Your task to perform on an android device: What's the weather? Image 0: 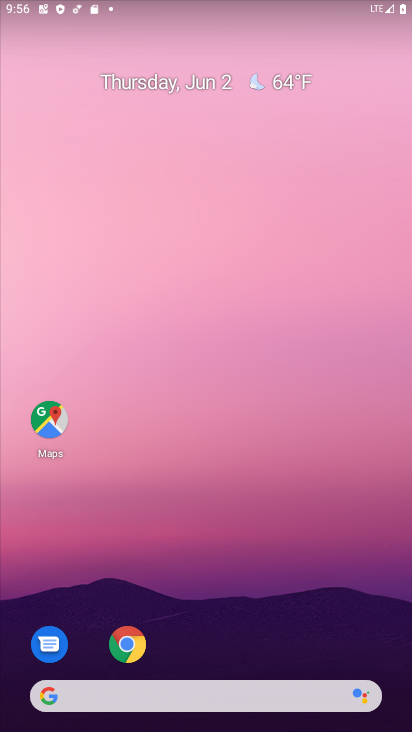
Step 0: press home button
Your task to perform on an android device: What's the weather? Image 1: 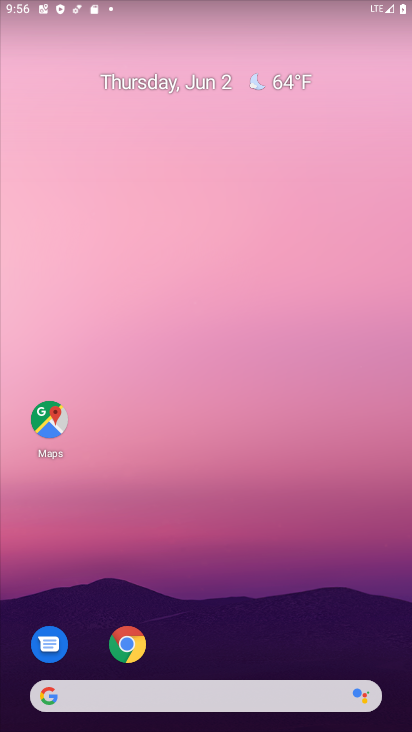
Step 1: drag from (226, 651) to (273, 179)
Your task to perform on an android device: What's the weather? Image 2: 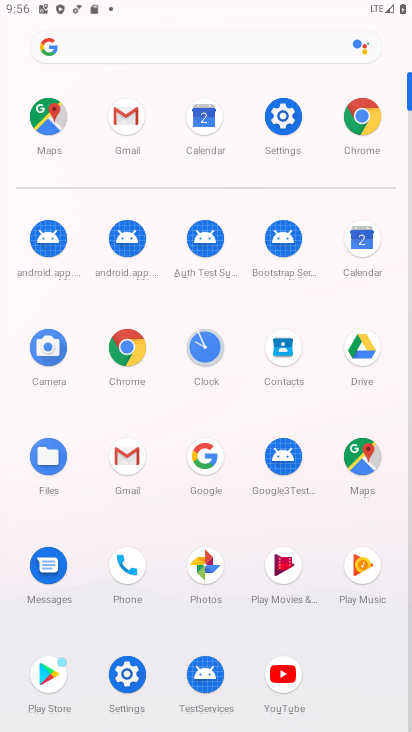
Step 2: click (132, 353)
Your task to perform on an android device: What's the weather? Image 3: 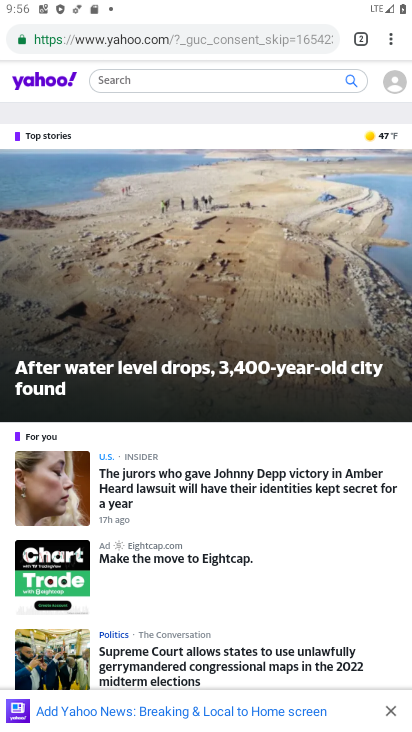
Step 3: click (149, 39)
Your task to perform on an android device: What's the weather? Image 4: 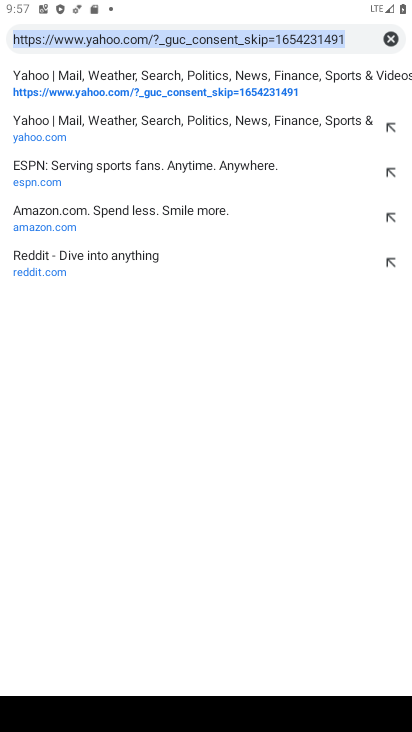
Step 4: click (403, 240)
Your task to perform on an android device: What's the weather? Image 5: 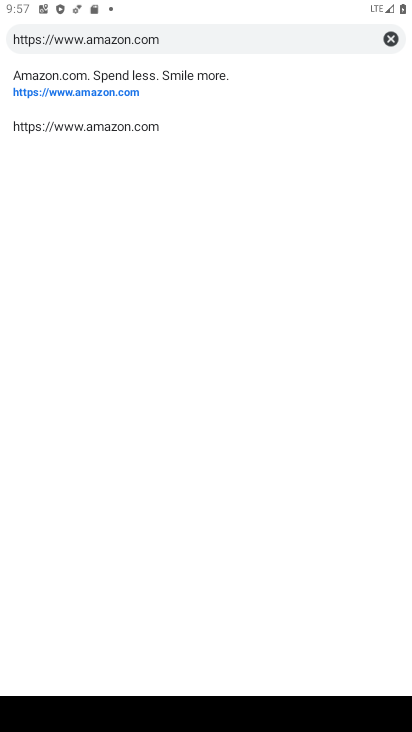
Step 5: click (385, 36)
Your task to perform on an android device: What's the weather? Image 6: 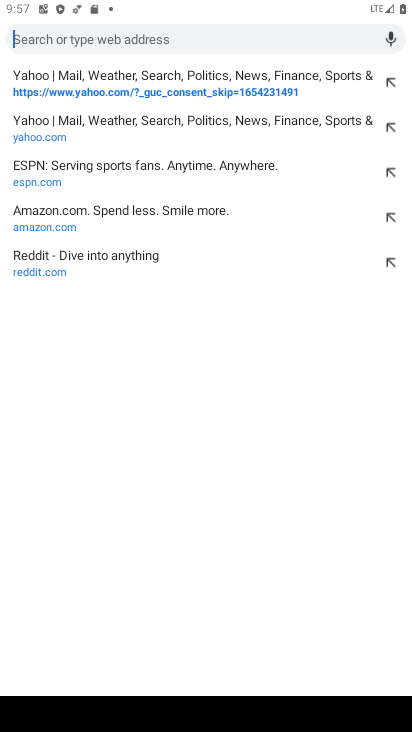
Step 6: type " "
Your task to perform on an android device: What's the weather? Image 7: 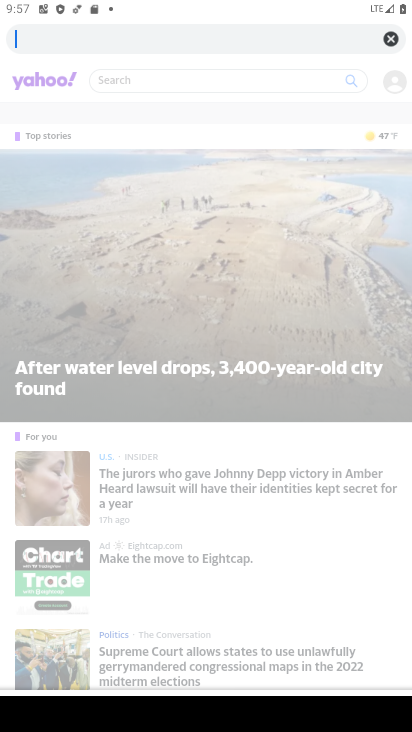
Step 7: type "What's the weather?"
Your task to perform on an android device: What's the weather? Image 8: 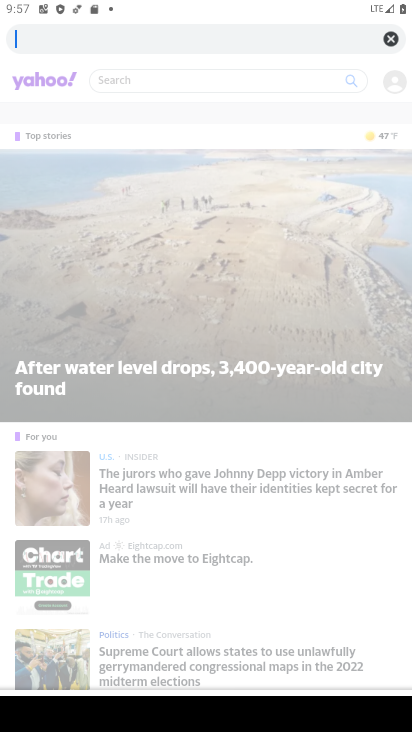
Step 8: click (117, 78)
Your task to perform on an android device: What's the weather? Image 9: 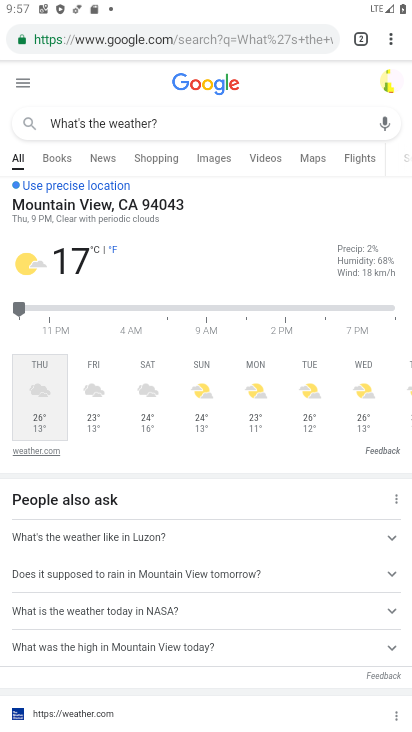
Step 9: task complete